Your task to perform on an android device: Open my contact list Image 0: 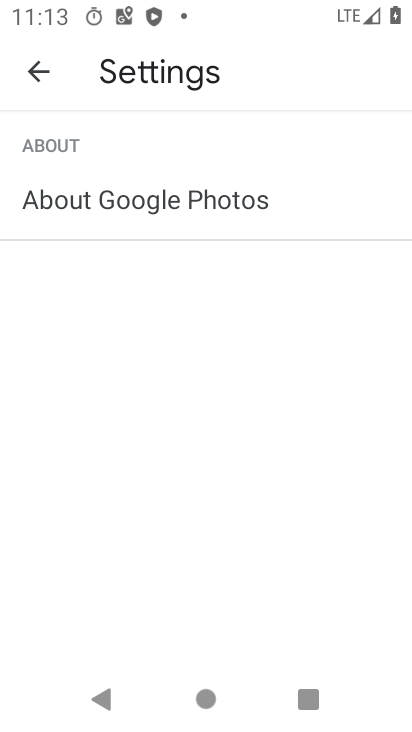
Step 0: press home button
Your task to perform on an android device: Open my contact list Image 1: 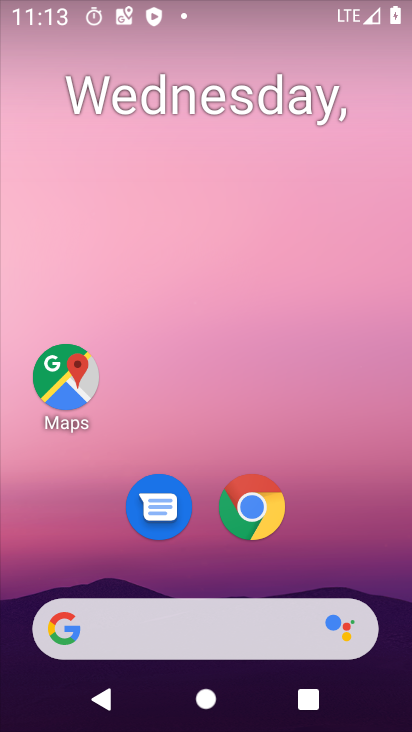
Step 1: drag from (229, 720) to (200, 21)
Your task to perform on an android device: Open my contact list Image 2: 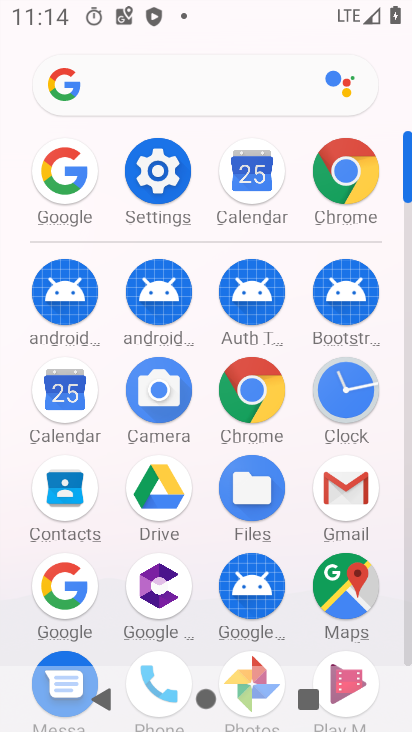
Step 2: click (60, 484)
Your task to perform on an android device: Open my contact list Image 3: 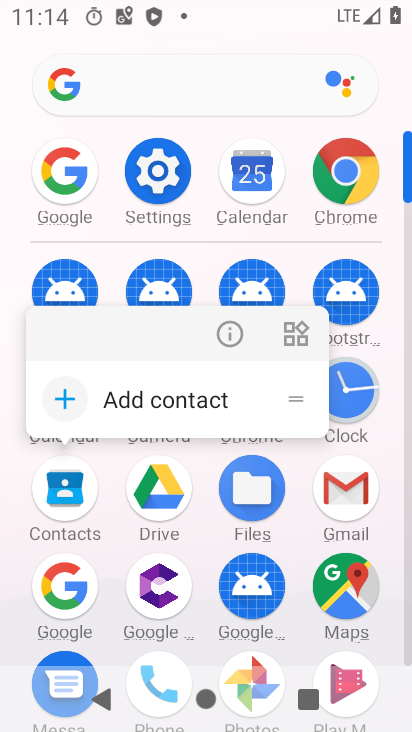
Step 3: click (71, 494)
Your task to perform on an android device: Open my contact list Image 4: 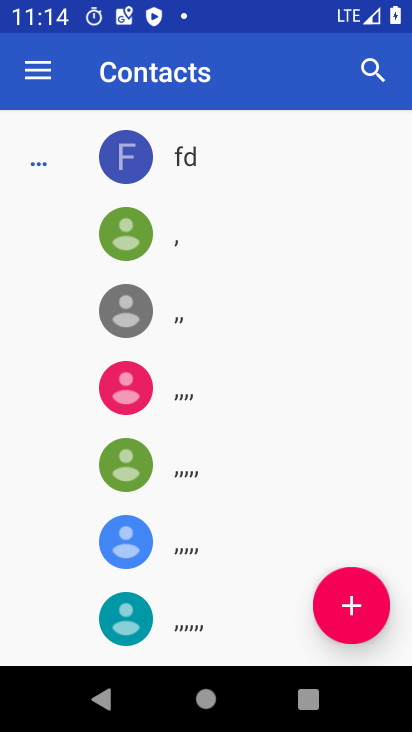
Step 4: task complete